Your task to perform on an android device: Search for sushi restaurants on Maps Image 0: 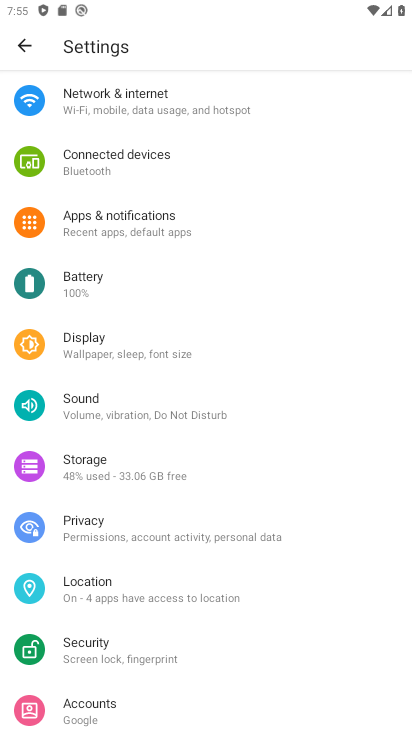
Step 0: press home button
Your task to perform on an android device: Search for sushi restaurants on Maps Image 1: 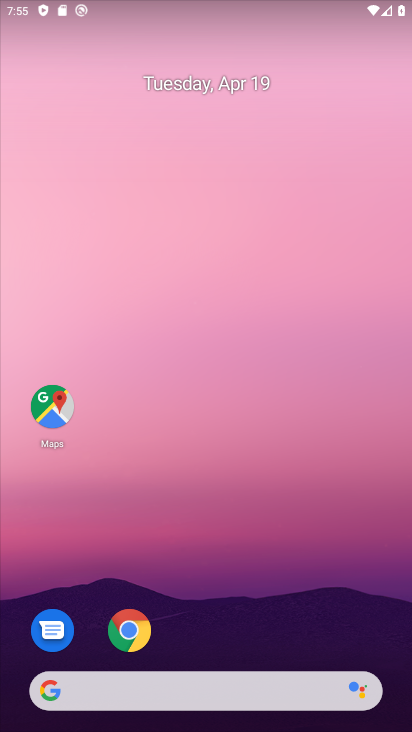
Step 1: click (44, 405)
Your task to perform on an android device: Search for sushi restaurants on Maps Image 2: 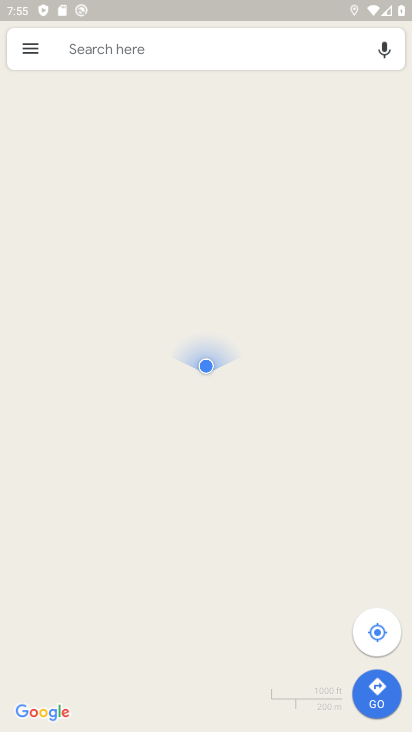
Step 2: click (200, 53)
Your task to perform on an android device: Search for sushi restaurants on Maps Image 3: 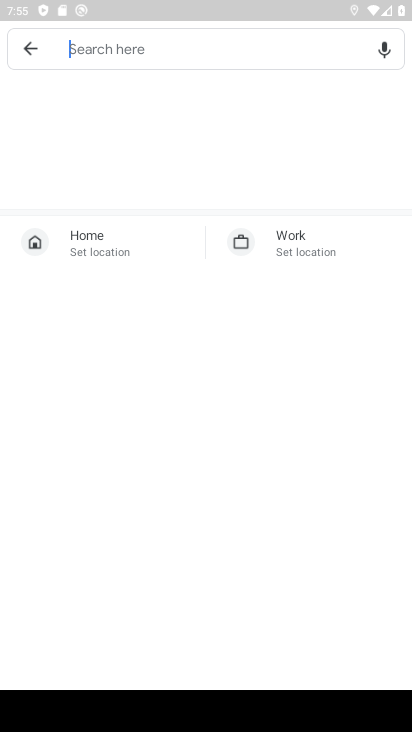
Step 3: type "sushi restaurants"
Your task to perform on an android device: Search for sushi restaurants on Maps Image 4: 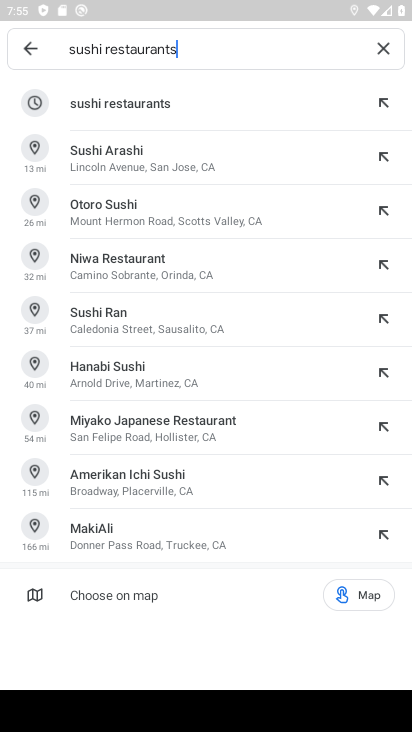
Step 4: click (159, 112)
Your task to perform on an android device: Search for sushi restaurants on Maps Image 5: 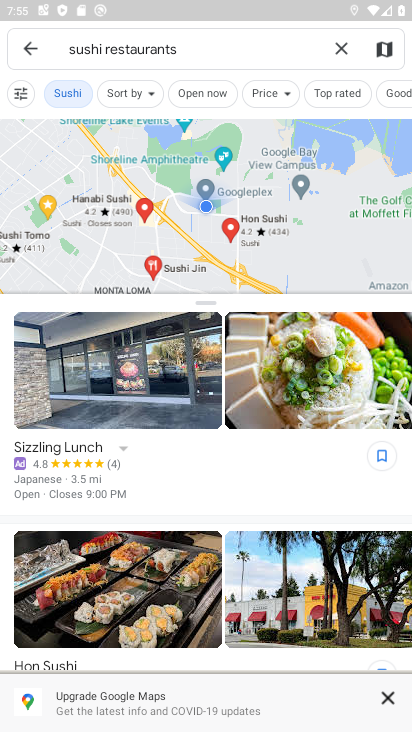
Step 5: task complete